Your task to perform on an android device: turn off priority inbox in the gmail app Image 0: 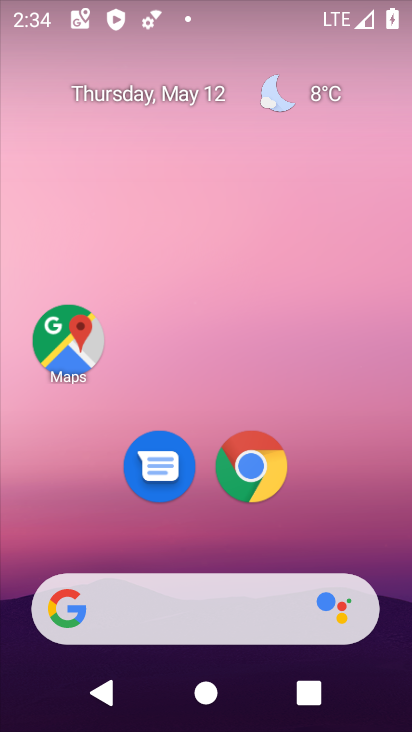
Step 0: drag from (334, 477) to (190, 113)
Your task to perform on an android device: turn off priority inbox in the gmail app Image 1: 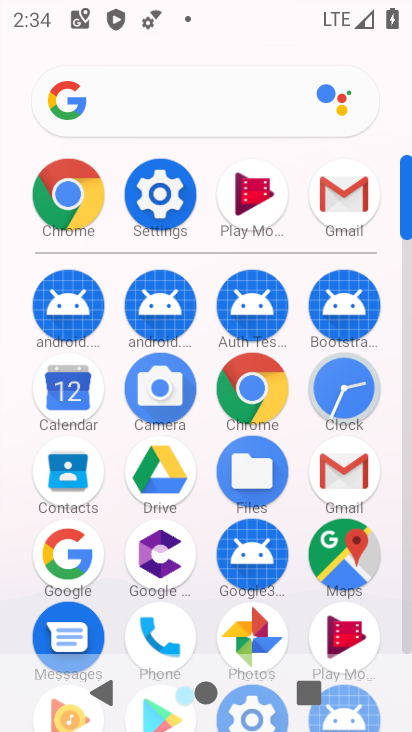
Step 1: click (331, 206)
Your task to perform on an android device: turn off priority inbox in the gmail app Image 2: 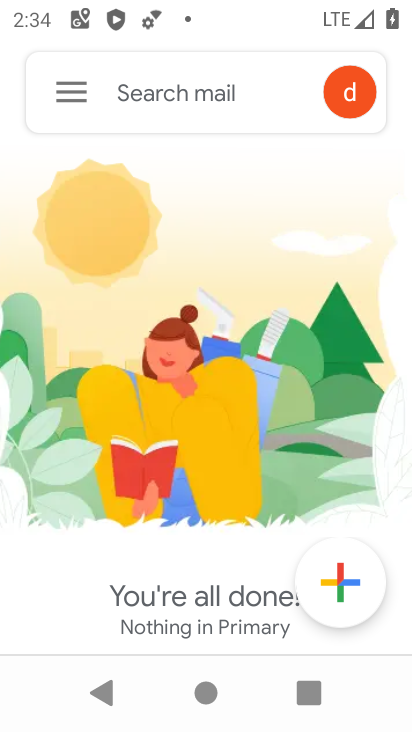
Step 2: click (71, 94)
Your task to perform on an android device: turn off priority inbox in the gmail app Image 3: 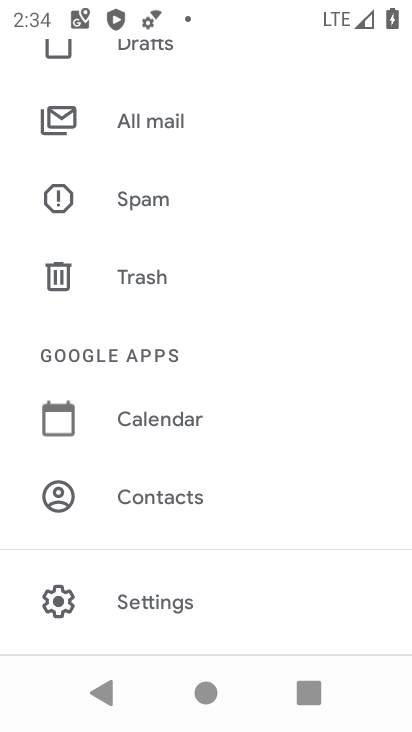
Step 3: click (143, 599)
Your task to perform on an android device: turn off priority inbox in the gmail app Image 4: 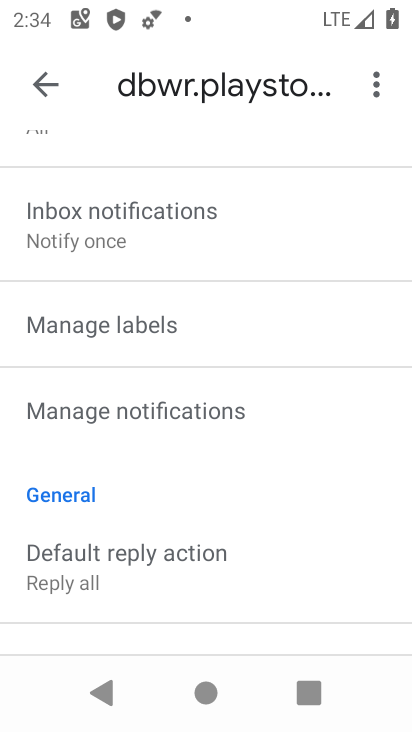
Step 4: drag from (144, 577) to (144, 233)
Your task to perform on an android device: turn off priority inbox in the gmail app Image 5: 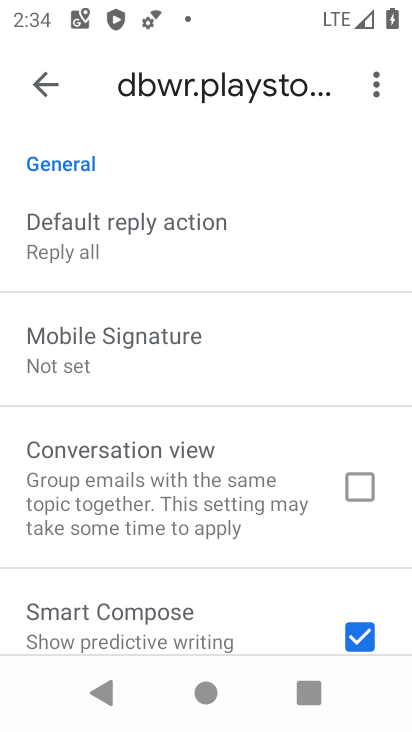
Step 5: drag from (142, 229) to (108, 613)
Your task to perform on an android device: turn off priority inbox in the gmail app Image 6: 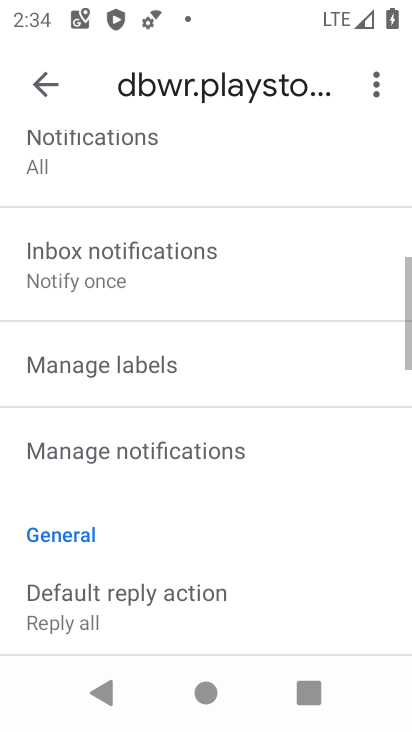
Step 6: drag from (118, 308) to (128, 561)
Your task to perform on an android device: turn off priority inbox in the gmail app Image 7: 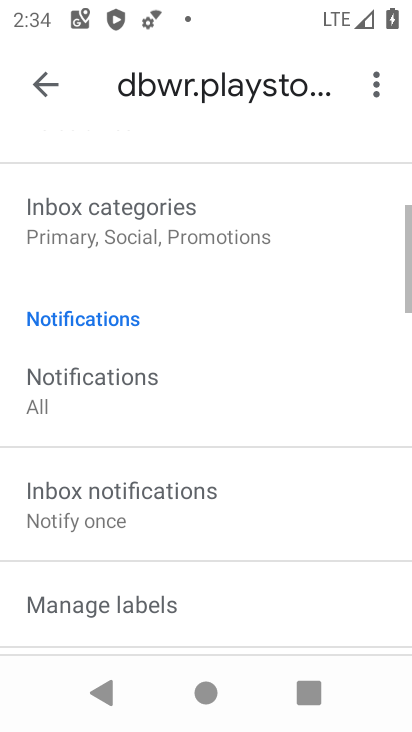
Step 7: drag from (130, 222) to (144, 529)
Your task to perform on an android device: turn off priority inbox in the gmail app Image 8: 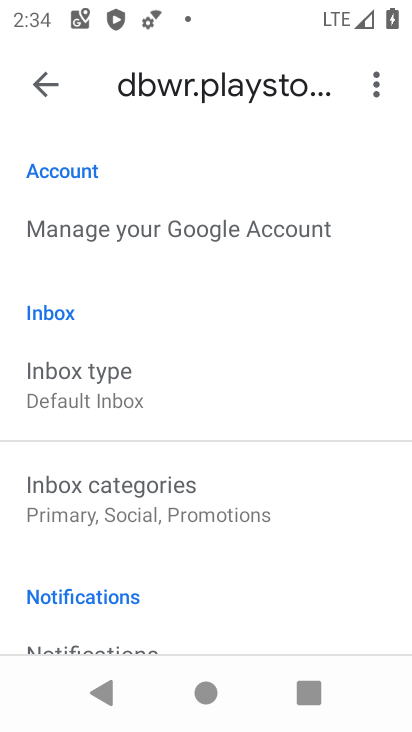
Step 8: click (110, 394)
Your task to perform on an android device: turn off priority inbox in the gmail app Image 9: 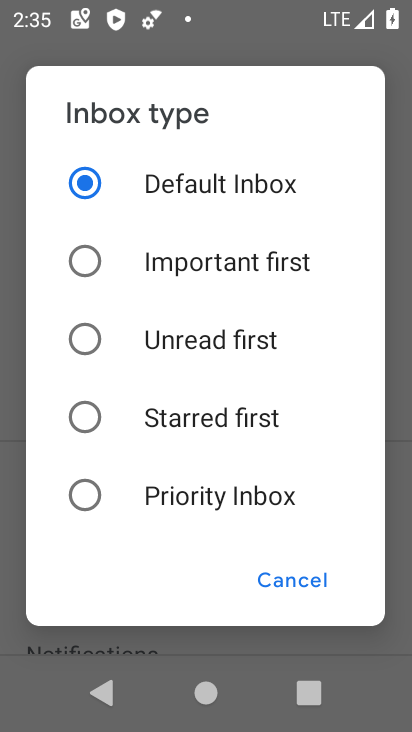
Step 9: task complete